Your task to perform on an android device: check storage Image 0: 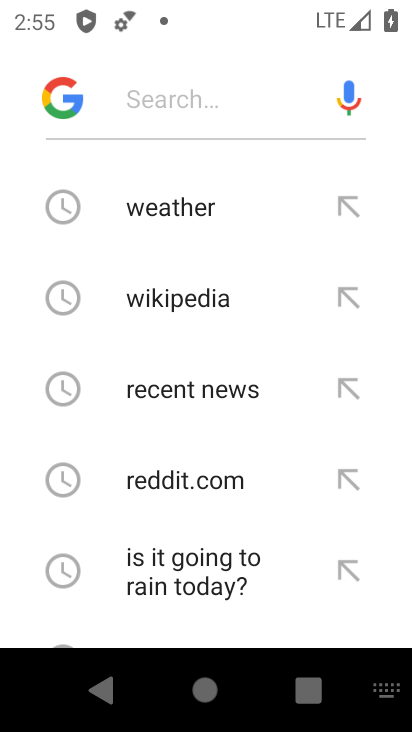
Step 0: press home button
Your task to perform on an android device: check storage Image 1: 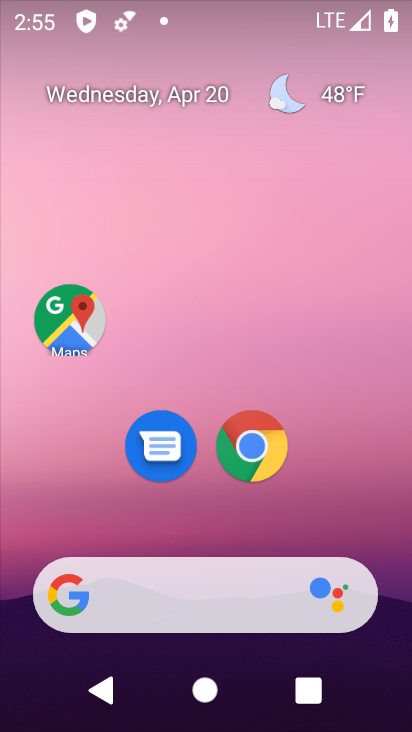
Step 1: drag from (302, 512) to (329, 198)
Your task to perform on an android device: check storage Image 2: 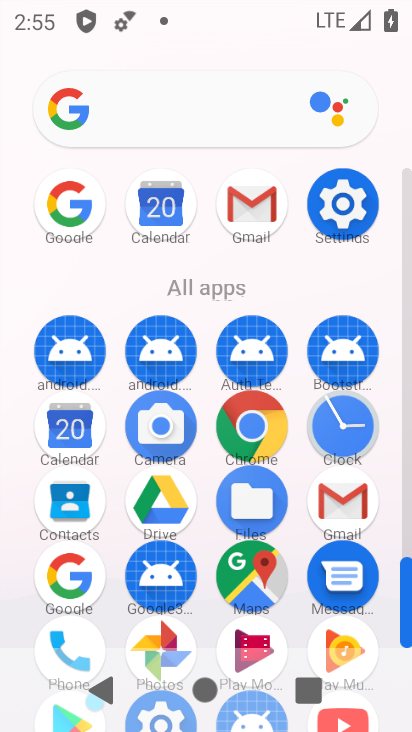
Step 2: click (354, 207)
Your task to perform on an android device: check storage Image 3: 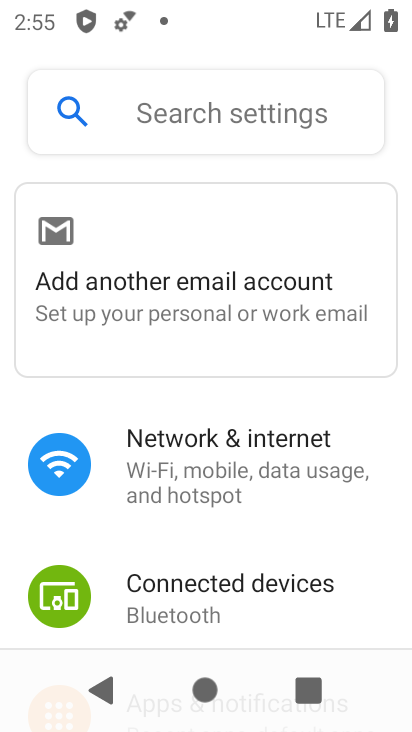
Step 3: drag from (182, 538) to (214, 344)
Your task to perform on an android device: check storage Image 4: 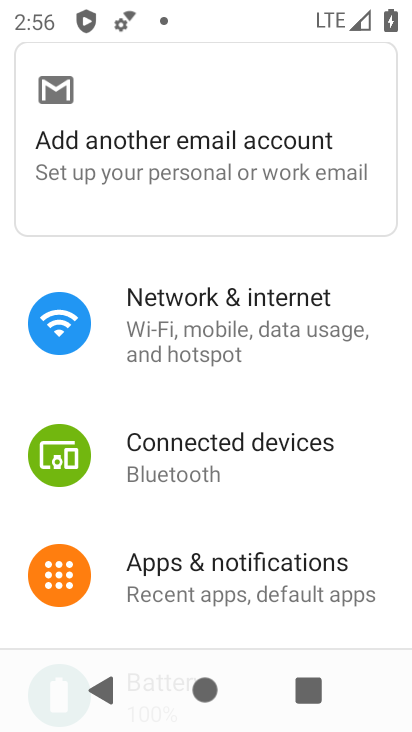
Step 4: drag from (152, 505) to (215, 243)
Your task to perform on an android device: check storage Image 5: 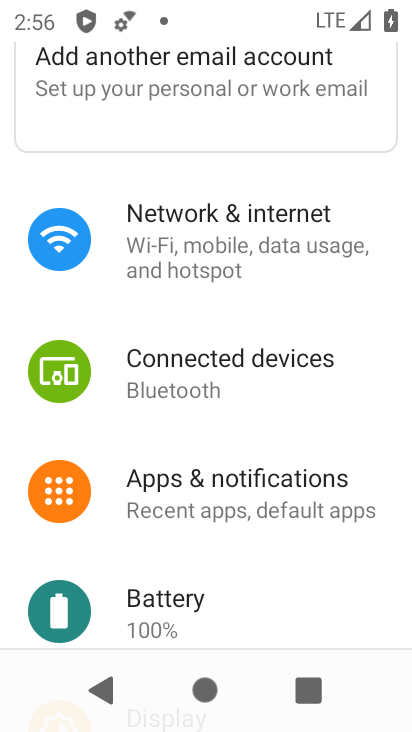
Step 5: drag from (164, 454) to (215, 234)
Your task to perform on an android device: check storage Image 6: 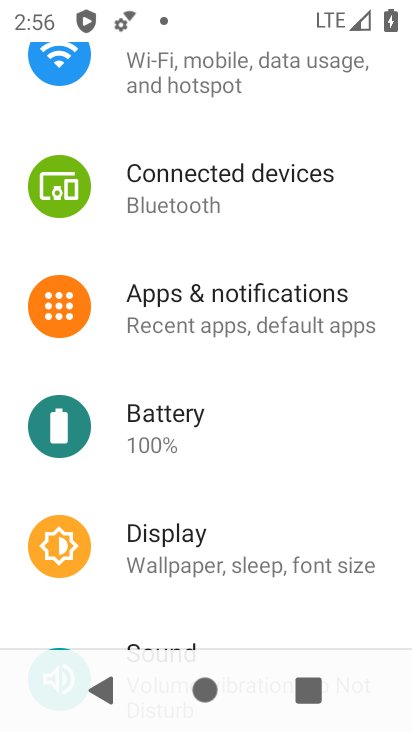
Step 6: drag from (170, 382) to (230, 176)
Your task to perform on an android device: check storage Image 7: 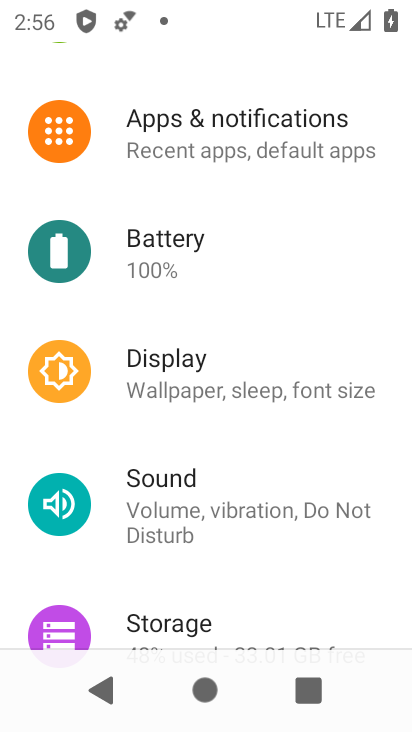
Step 7: click (169, 621)
Your task to perform on an android device: check storage Image 8: 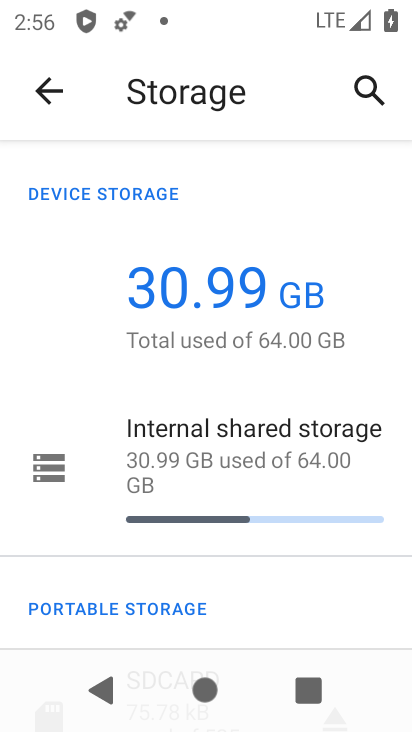
Step 8: task complete